Your task to perform on an android device: open app "Contacts" (install if not already installed) Image 0: 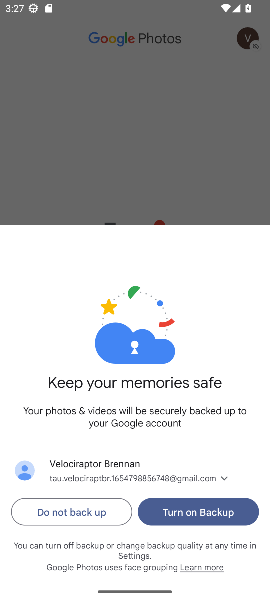
Step 0: click (15, 516)
Your task to perform on an android device: open app "Contacts" (install if not already installed) Image 1: 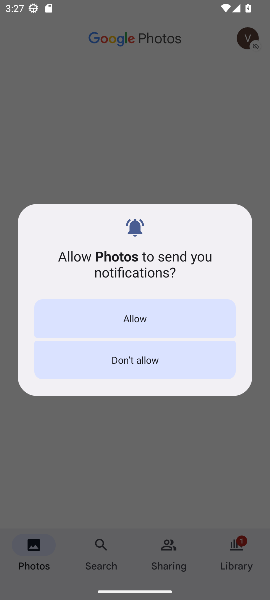
Step 1: click (111, 326)
Your task to perform on an android device: open app "Contacts" (install if not already installed) Image 2: 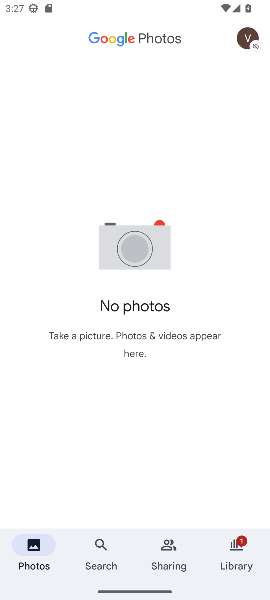
Step 2: press home button
Your task to perform on an android device: open app "Contacts" (install if not already installed) Image 3: 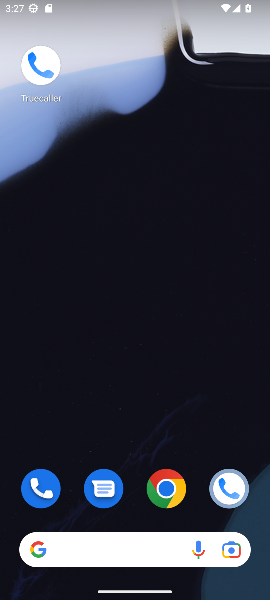
Step 3: drag from (129, 500) to (121, 105)
Your task to perform on an android device: open app "Contacts" (install if not already installed) Image 4: 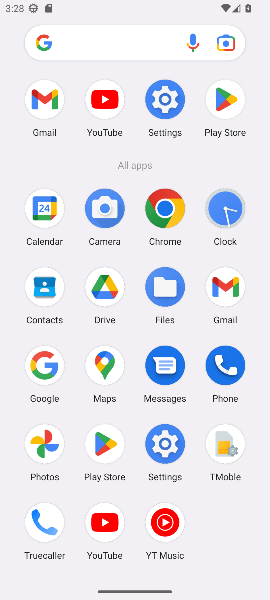
Step 4: click (54, 285)
Your task to perform on an android device: open app "Contacts" (install if not already installed) Image 5: 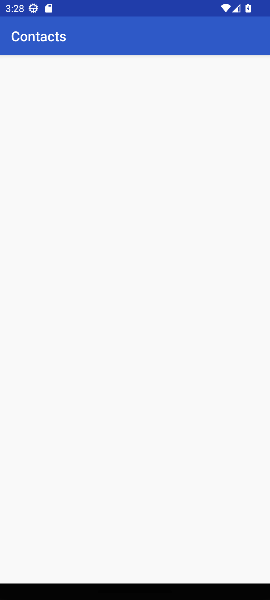
Step 5: task complete